Your task to perform on an android device: Open Wikipedia Image 0: 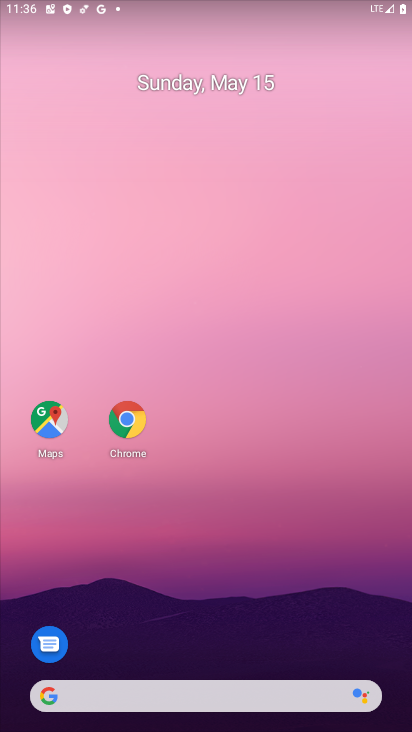
Step 0: drag from (193, 614) to (306, 103)
Your task to perform on an android device: Open Wikipedia Image 1: 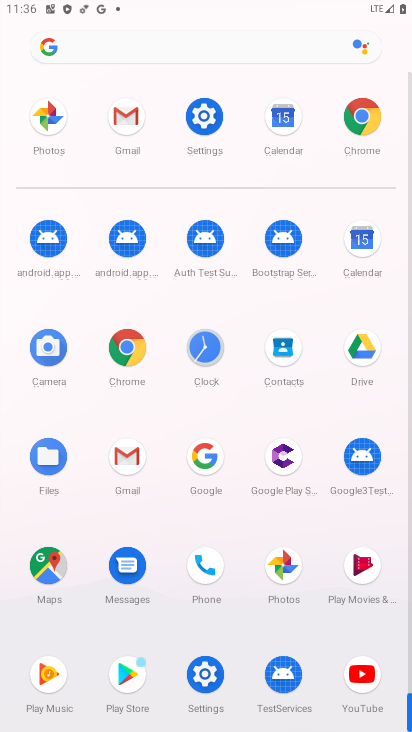
Step 1: click (239, 49)
Your task to perform on an android device: Open Wikipedia Image 2: 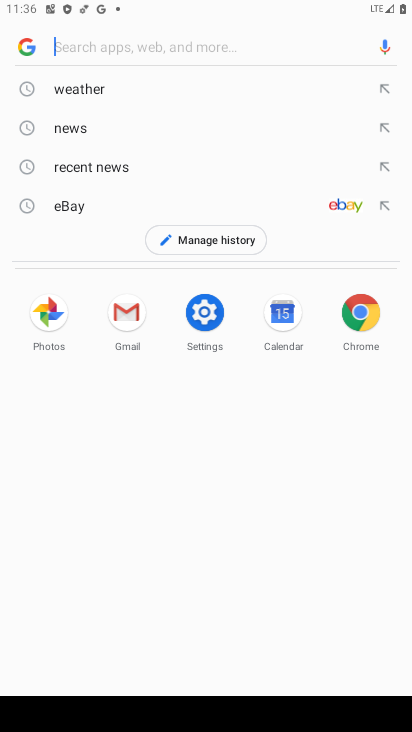
Step 2: type "wikipedia"
Your task to perform on an android device: Open Wikipedia Image 3: 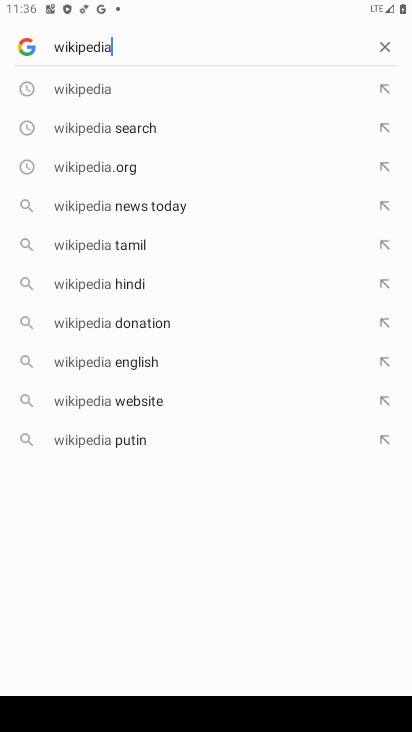
Step 3: click (91, 87)
Your task to perform on an android device: Open Wikipedia Image 4: 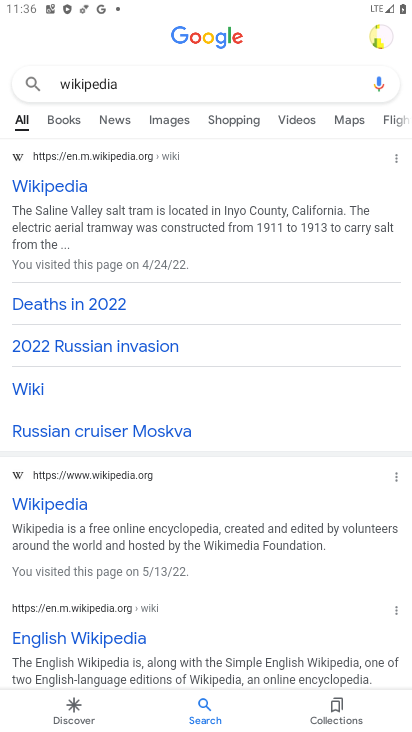
Step 4: drag from (221, 610) to (286, 81)
Your task to perform on an android device: Open Wikipedia Image 5: 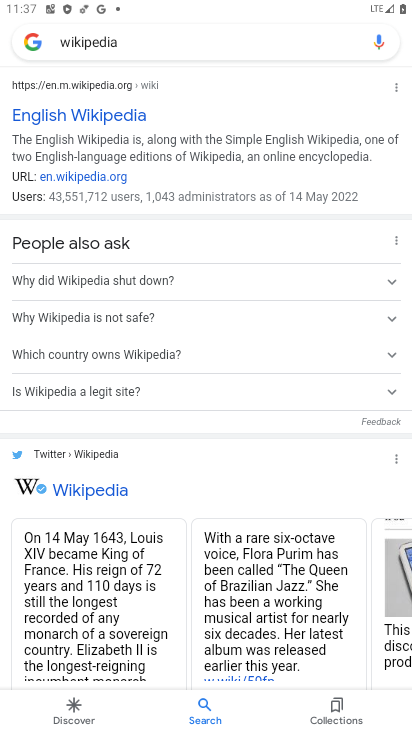
Step 5: drag from (93, 128) to (223, 485)
Your task to perform on an android device: Open Wikipedia Image 6: 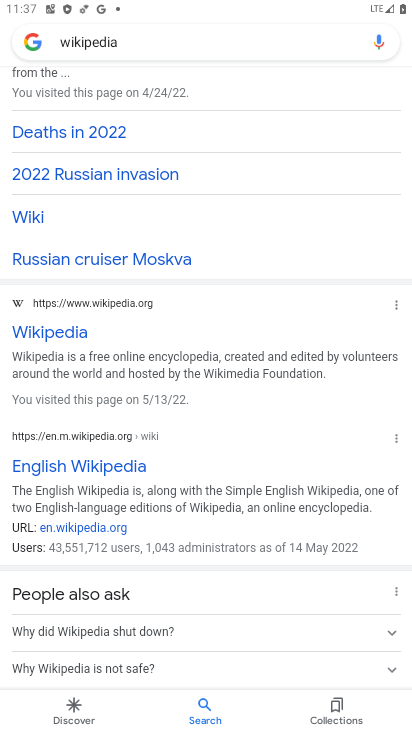
Step 6: drag from (106, 271) to (170, 534)
Your task to perform on an android device: Open Wikipedia Image 7: 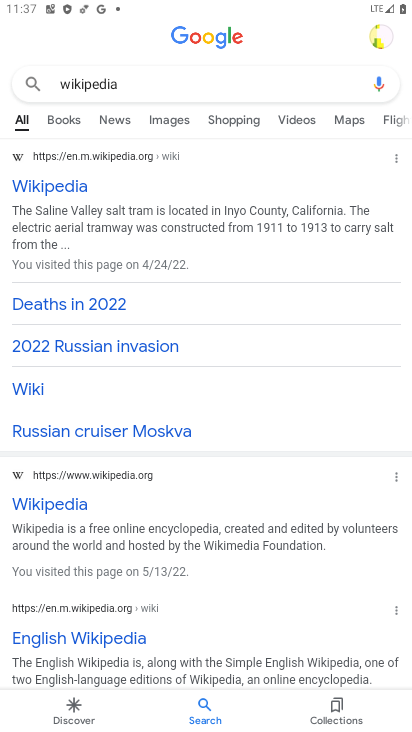
Step 7: click (43, 185)
Your task to perform on an android device: Open Wikipedia Image 8: 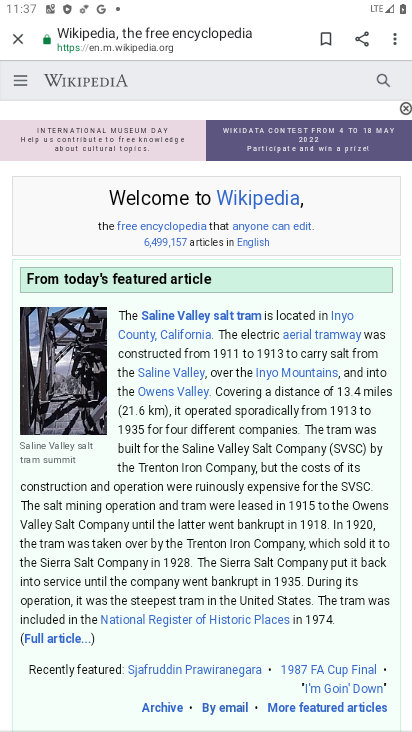
Step 8: task complete